Your task to perform on an android device: Check the weather Image 0: 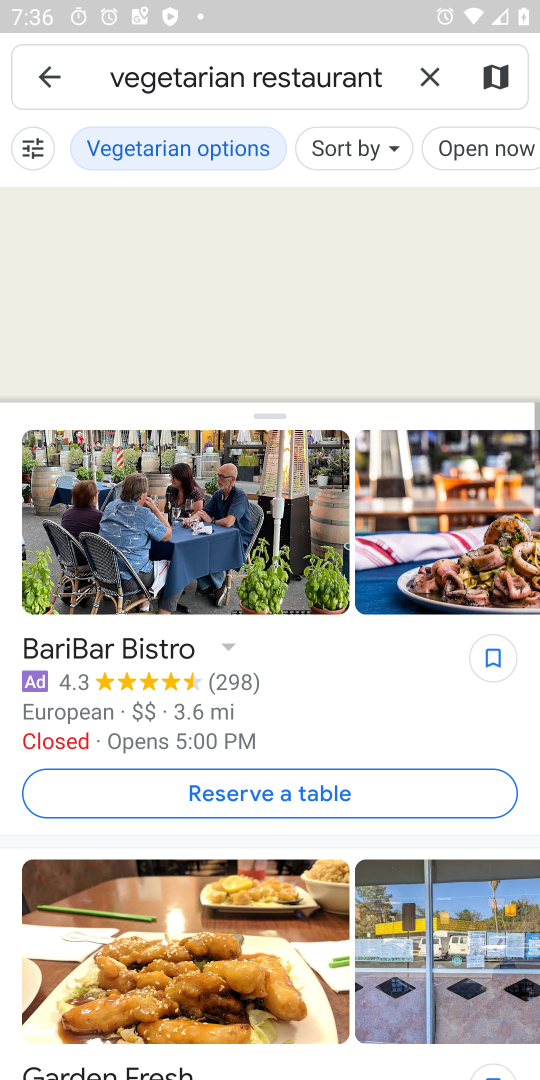
Step 0: press home button
Your task to perform on an android device: Check the weather Image 1: 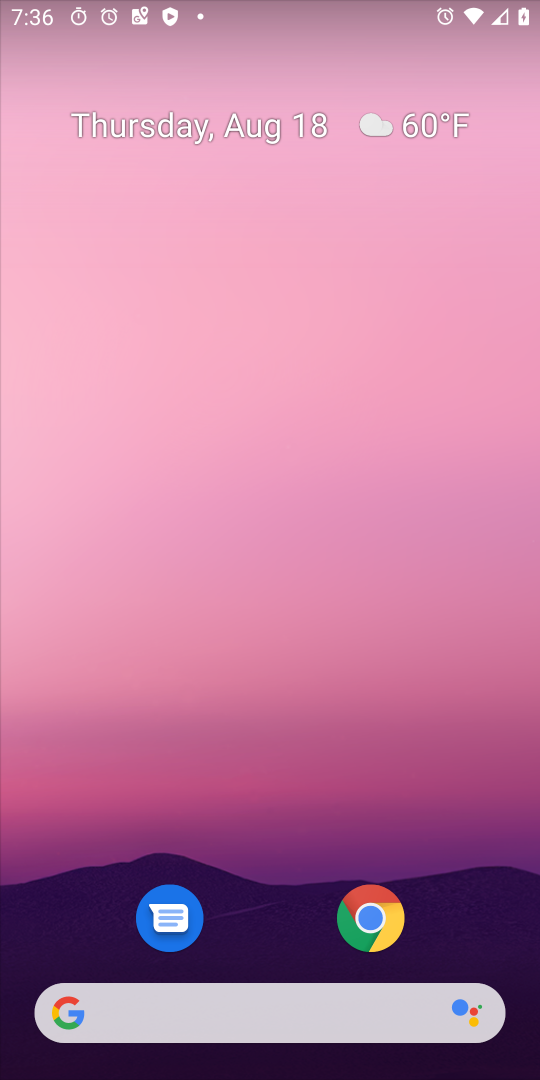
Step 1: click (57, 1014)
Your task to perform on an android device: Check the weather Image 2: 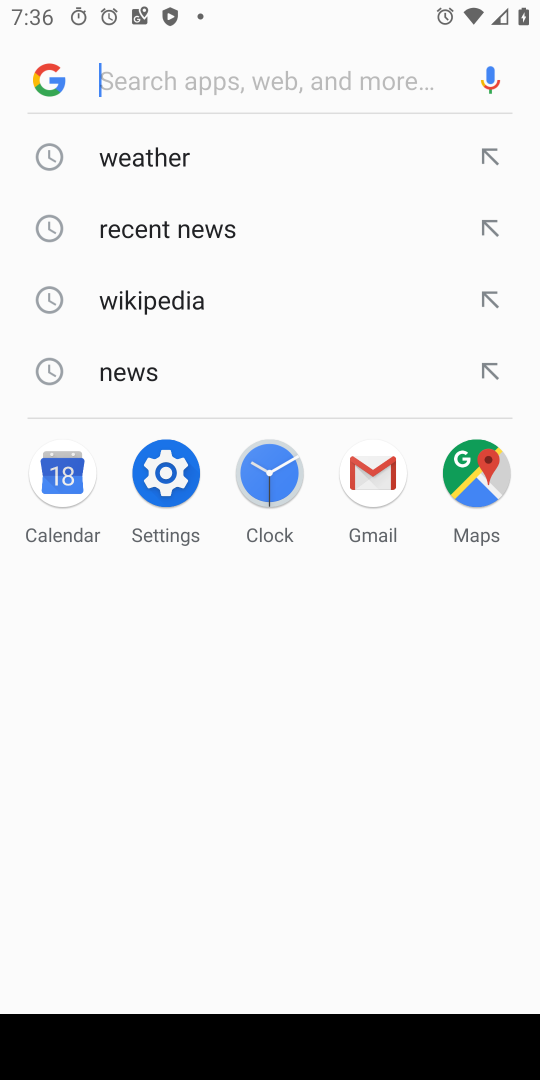
Step 2: click (136, 169)
Your task to perform on an android device: Check the weather Image 3: 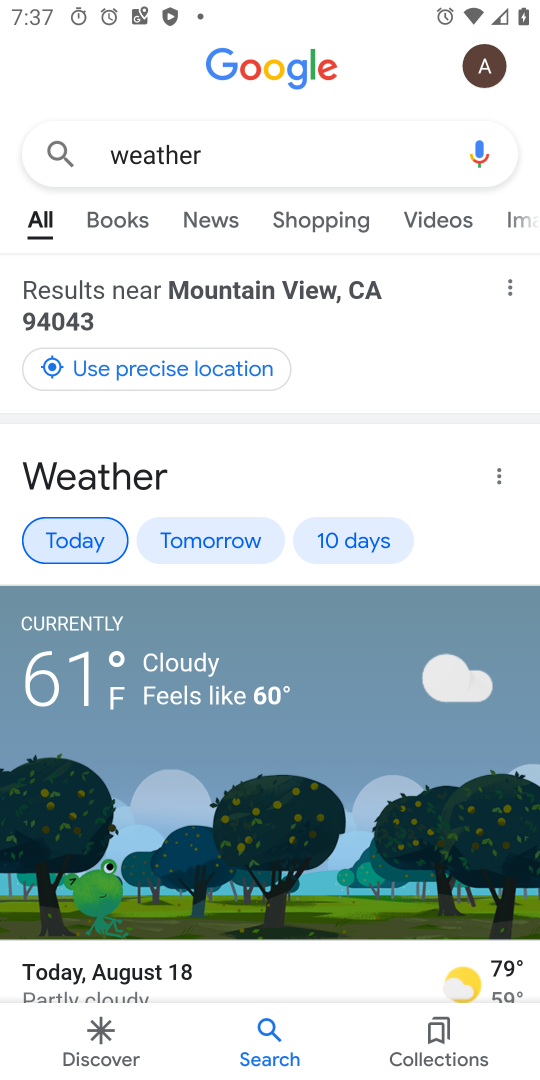
Step 3: task complete